Your task to perform on an android device: allow cookies in the chrome app Image 0: 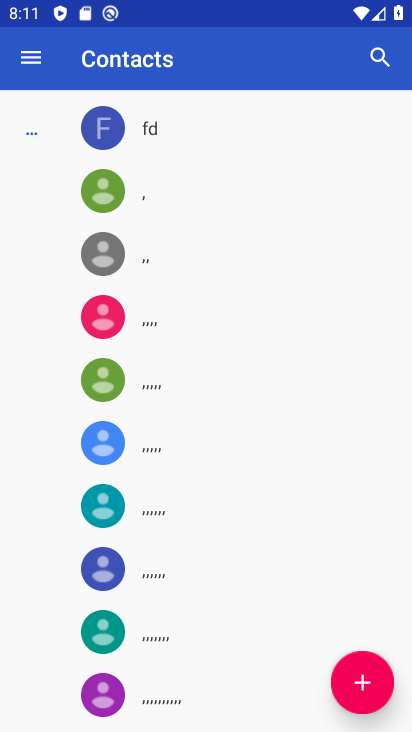
Step 0: drag from (186, 633) to (349, 46)
Your task to perform on an android device: allow cookies in the chrome app Image 1: 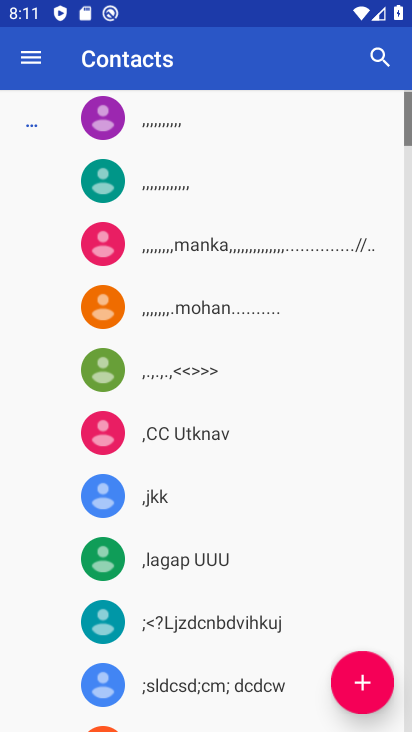
Step 1: press home button
Your task to perform on an android device: allow cookies in the chrome app Image 2: 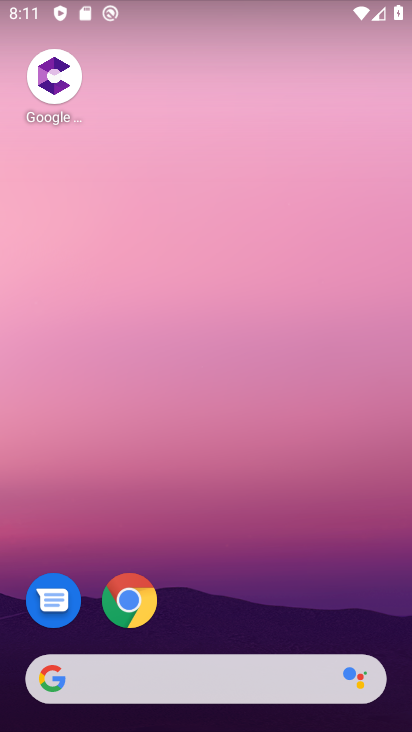
Step 2: drag from (248, 647) to (369, 20)
Your task to perform on an android device: allow cookies in the chrome app Image 3: 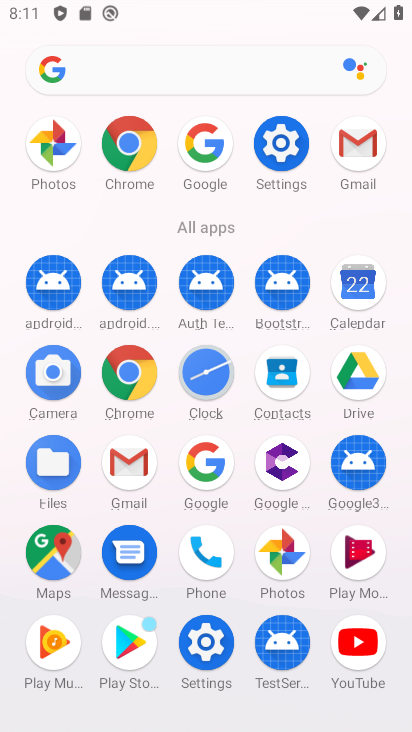
Step 3: click (141, 158)
Your task to perform on an android device: allow cookies in the chrome app Image 4: 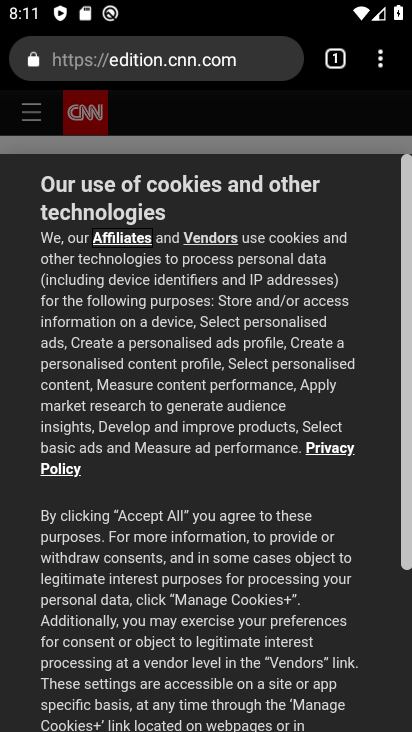
Step 4: click (391, 63)
Your task to perform on an android device: allow cookies in the chrome app Image 5: 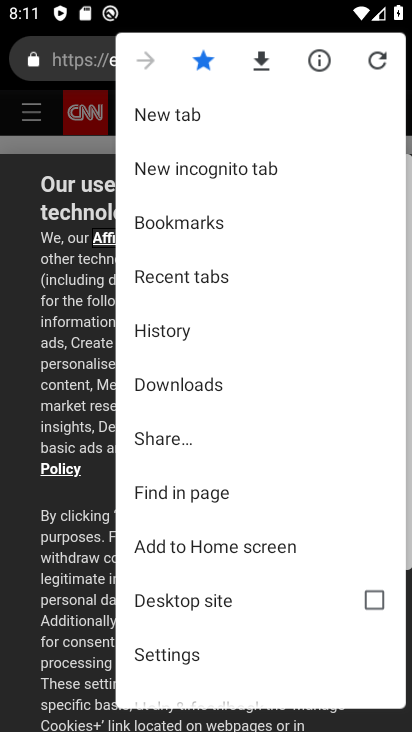
Step 5: click (185, 663)
Your task to perform on an android device: allow cookies in the chrome app Image 6: 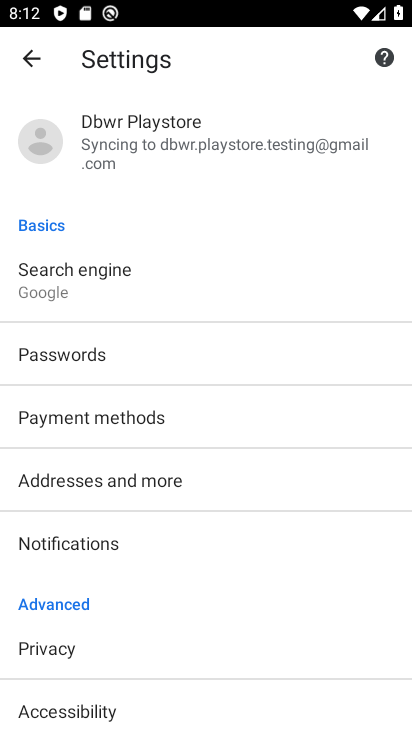
Step 6: drag from (154, 599) to (276, 181)
Your task to perform on an android device: allow cookies in the chrome app Image 7: 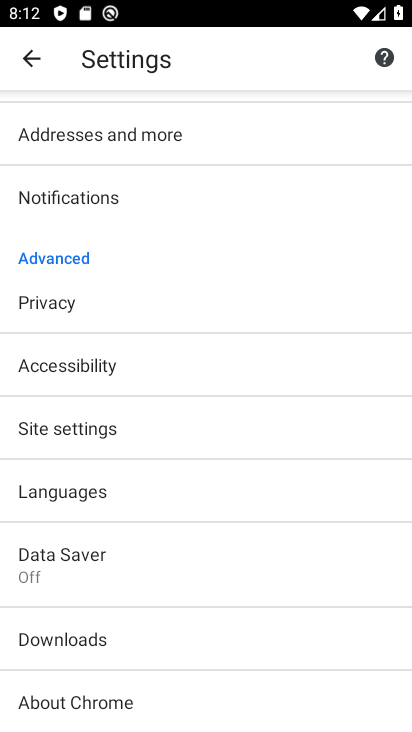
Step 7: click (110, 431)
Your task to perform on an android device: allow cookies in the chrome app Image 8: 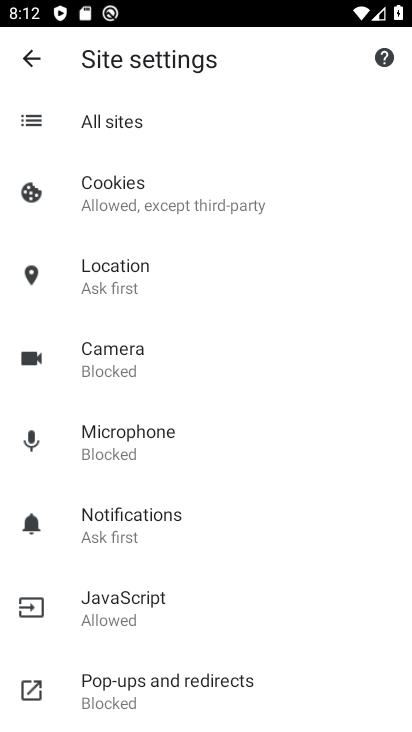
Step 8: click (158, 206)
Your task to perform on an android device: allow cookies in the chrome app Image 9: 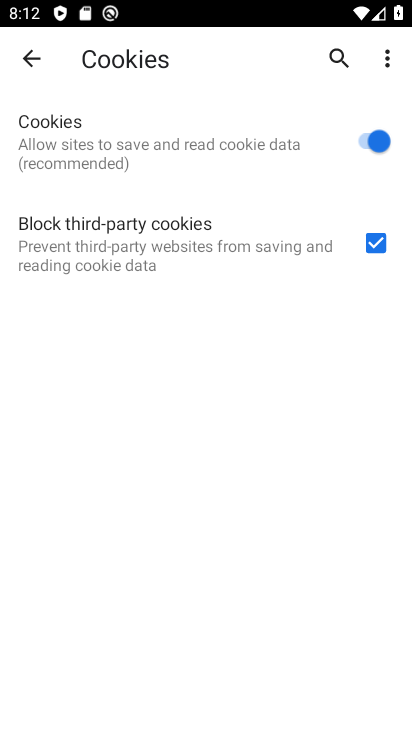
Step 9: task complete